Your task to perform on an android device: Open Google Image 0: 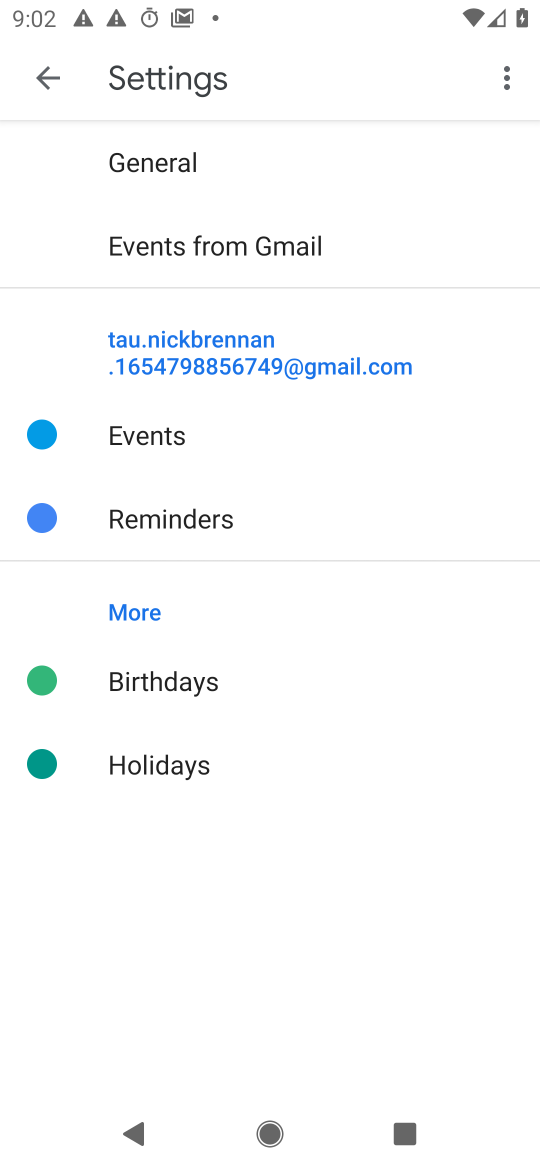
Step 0: press back button
Your task to perform on an android device: Open Google Image 1: 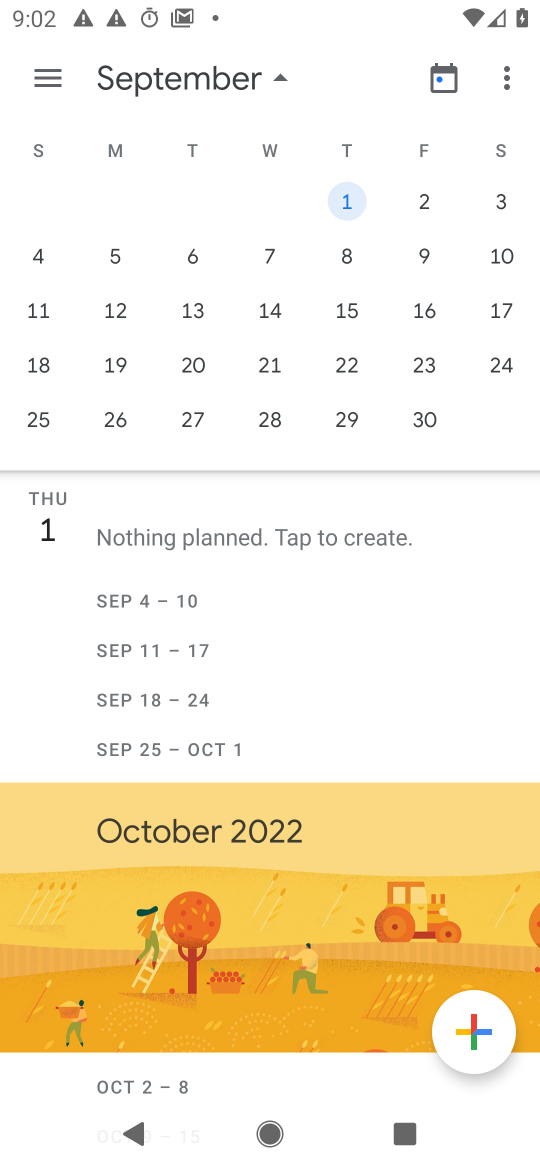
Step 1: press back button
Your task to perform on an android device: Open Google Image 2: 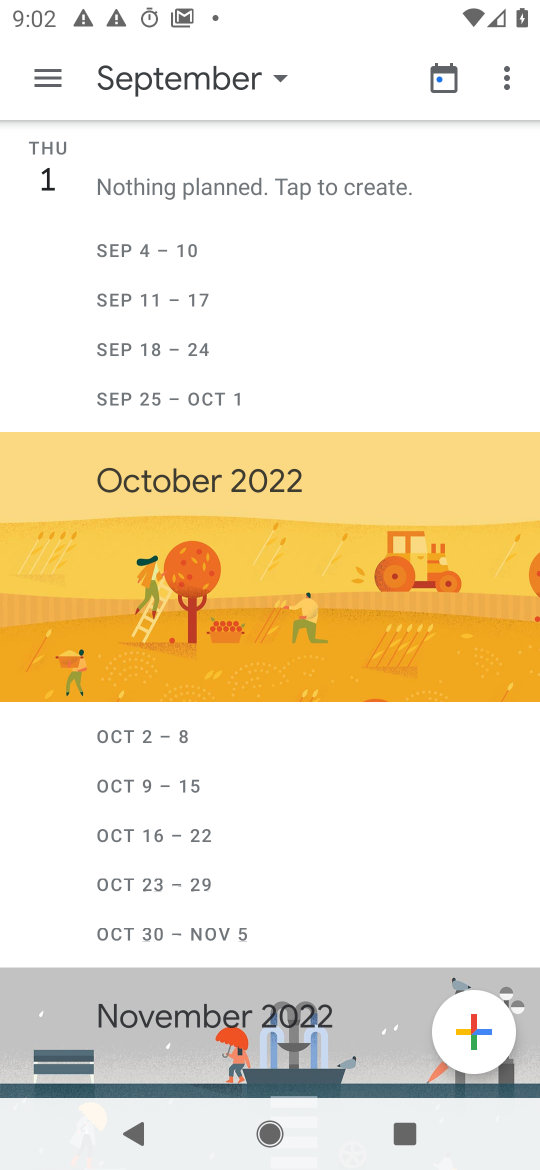
Step 2: press back button
Your task to perform on an android device: Open Google Image 3: 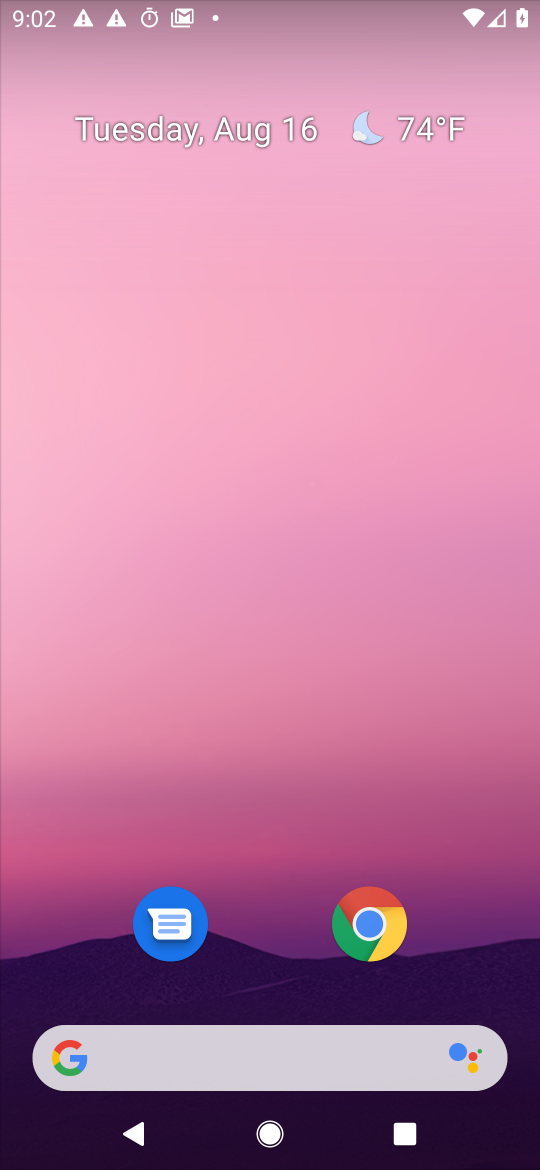
Step 3: drag from (244, 980) to (391, 24)
Your task to perform on an android device: Open Google Image 4: 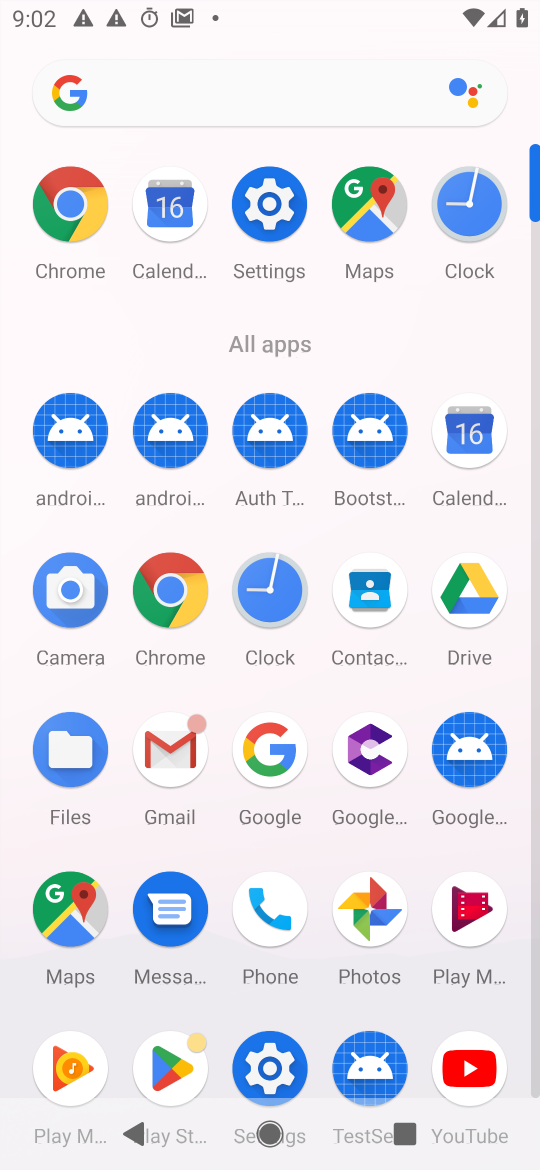
Step 4: click (270, 747)
Your task to perform on an android device: Open Google Image 5: 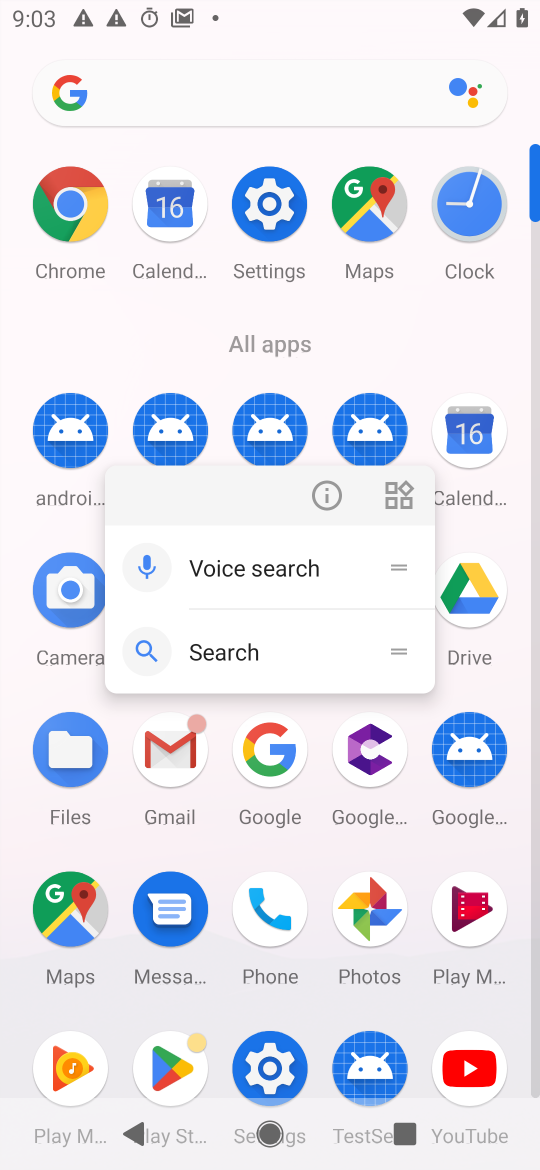
Step 5: click (289, 765)
Your task to perform on an android device: Open Google Image 6: 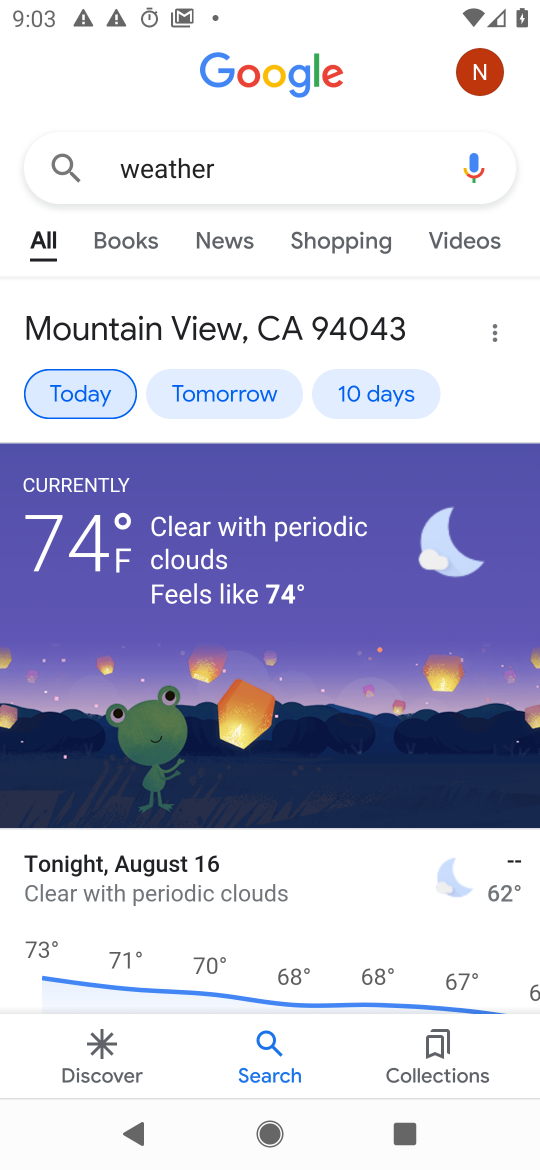
Step 6: task complete